Your task to perform on an android device: change keyboard looks Image 0: 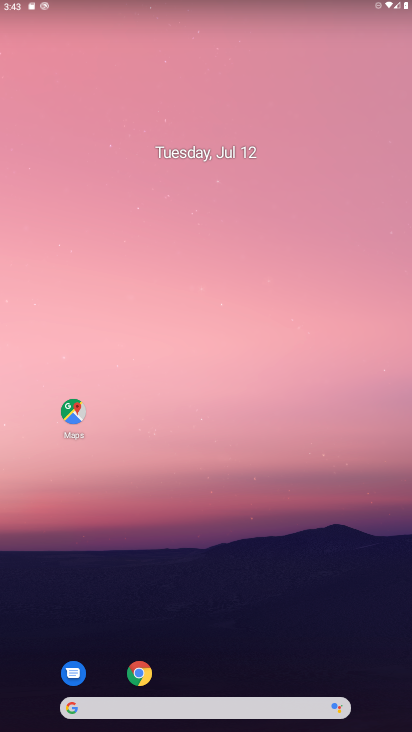
Step 0: drag from (192, 700) to (218, 280)
Your task to perform on an android device: change keyboard looks Image 1: 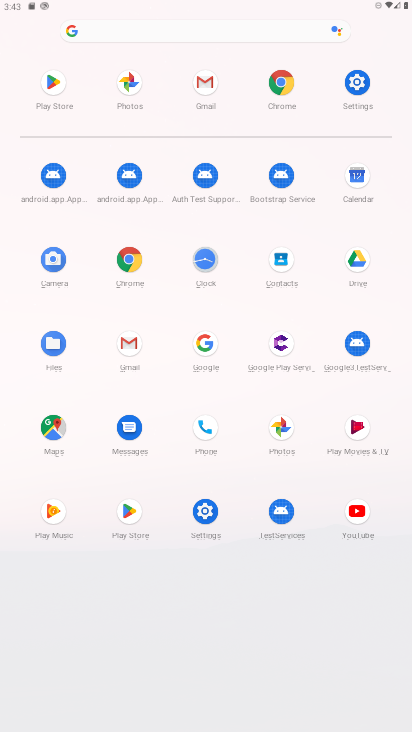
Step 1: click (206, 511)
Your task to perform on an android device: change keyboard looks Image 2: 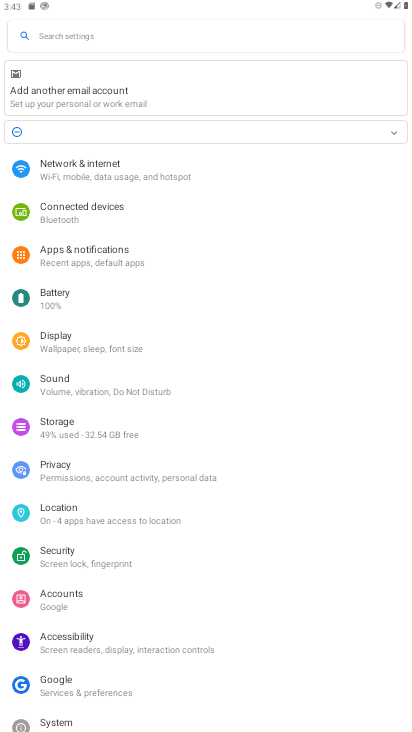
Step 2: drag from (62, 663) to (110, 553)
Your task to perform on an android device: change keyboard looks Image 3: 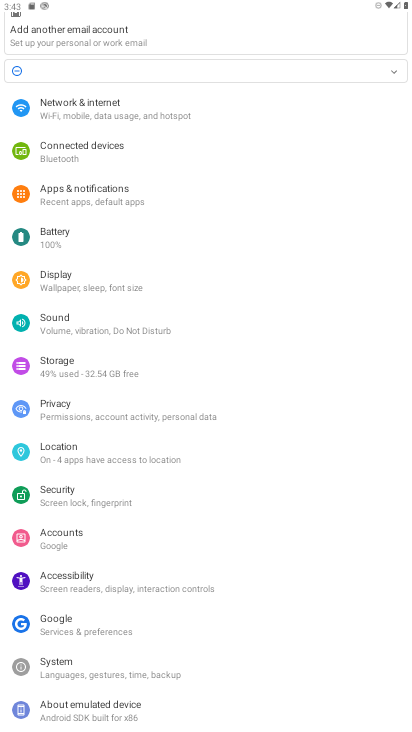
Step 3: click (85, 672)
Your task to perform on an android device: change keyboard looks Image 4: 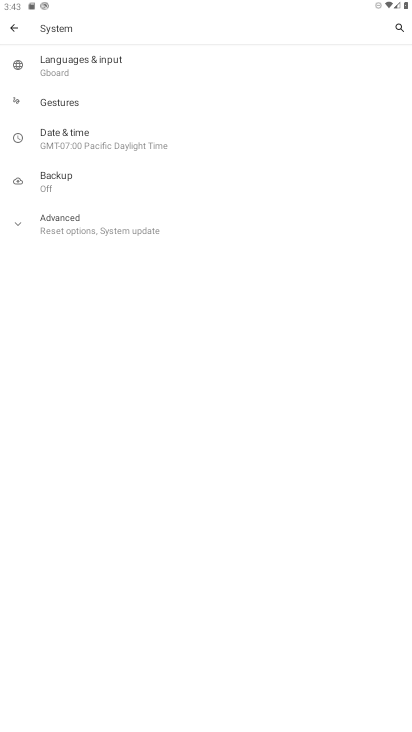
Step 4: click (78, 66)
Your task to perform on an android device: change keyboard looks Image 5: 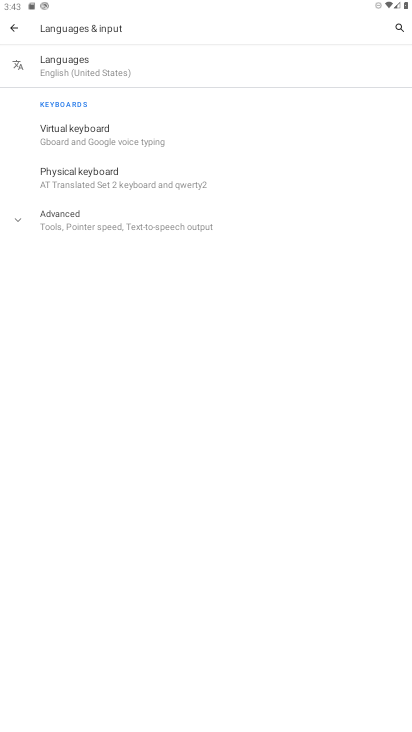
Step 5: click (85, 137)
Your task to perform on an android device: change keyboard looks Image 6: 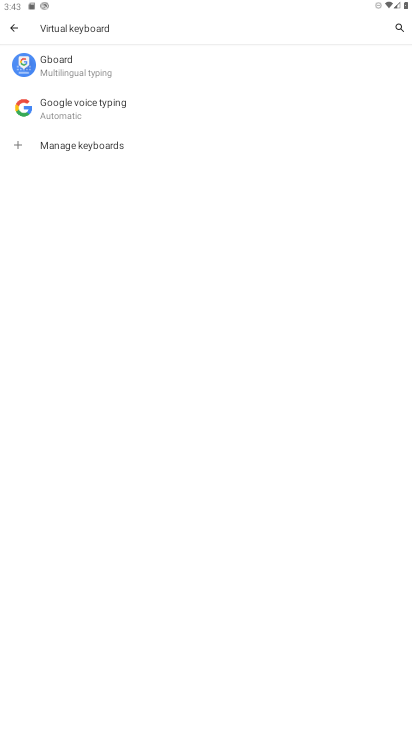
Step 6: click (65, 71)
Your task to perform on an android device: change keyboard looks Image 7: 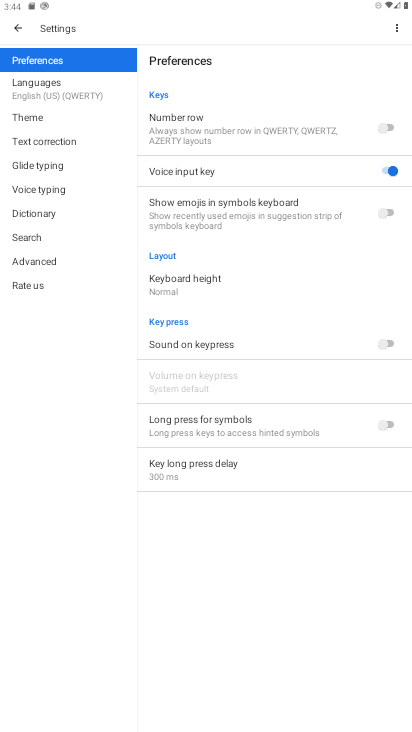
Step 7: click (37, 121)
Your task to perform on an android device: change keyboard looks Image 8: 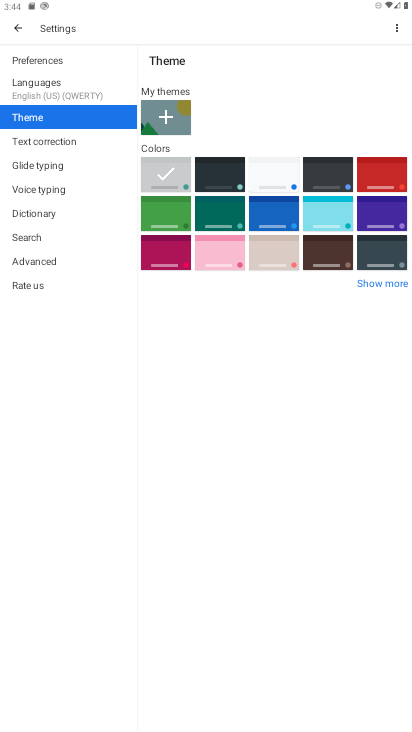
Step 8: click (172, 213)
Your task to perform on an android device: change keyboard looks Image 9: 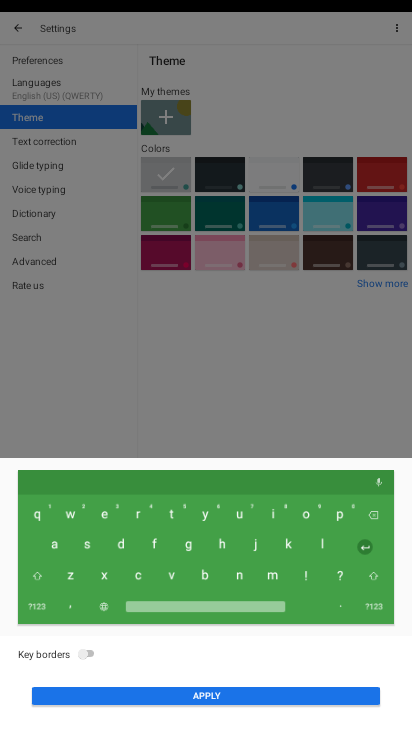
Step 9: click (82, 654)
Your task to perform on an android device: change keyboard looks Image 10: 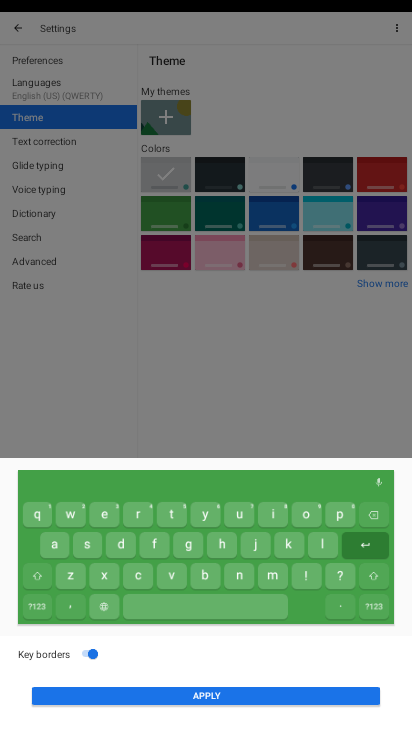
Step 10: click (202, 693)
Your task to perform on an android device: change keyboard looks Image 11: 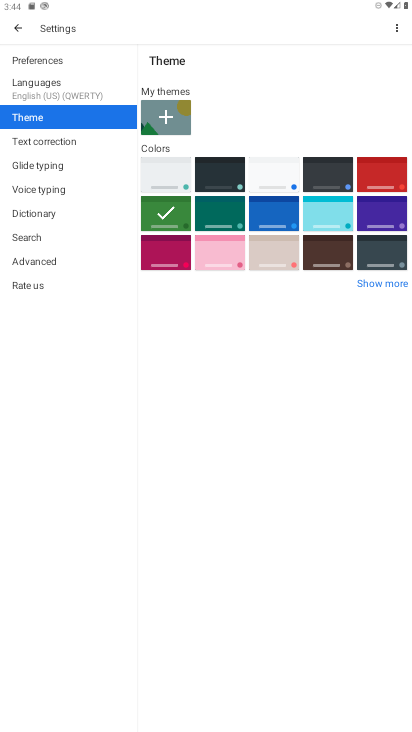
Step 11: task complete